Your task to perform on an android device: View the shopping cart on ebay. Image 0: 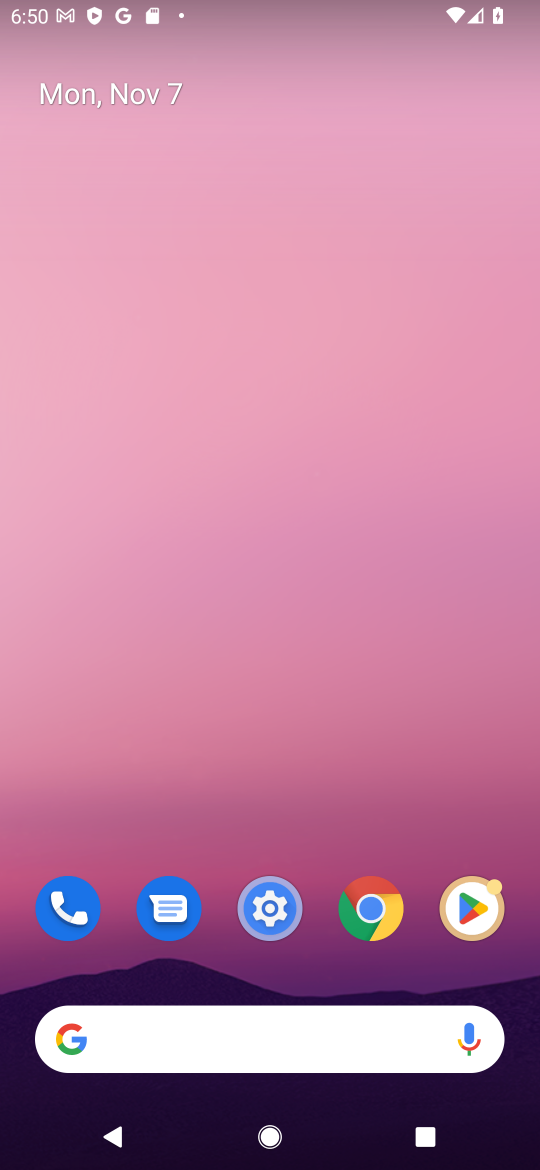
Step 0: click (289, 1054)
Your task to perform on an android device: View the shopping cart on ebay. Image 1: 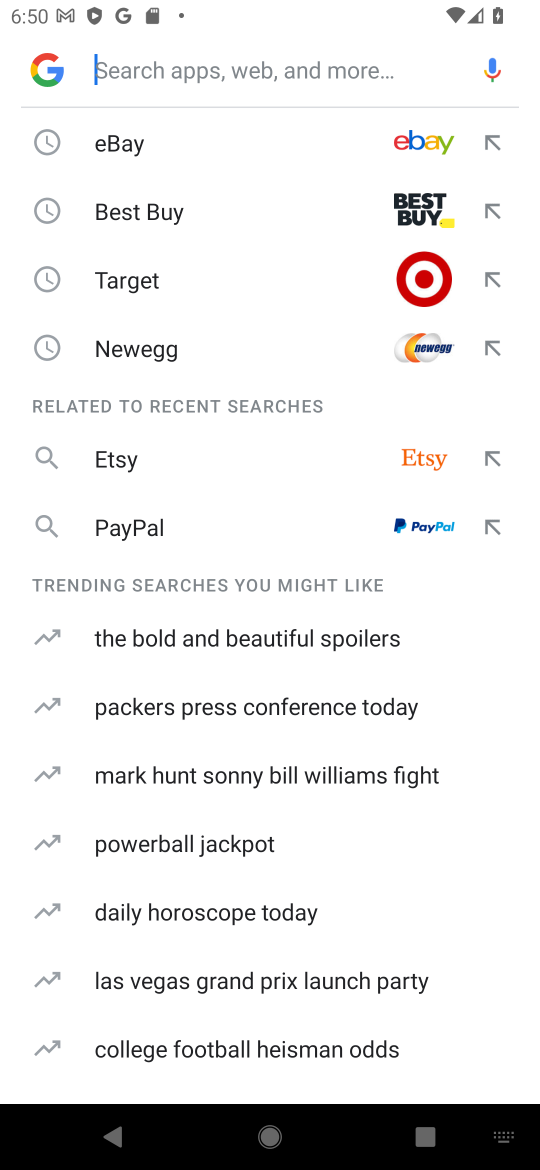
Step 1: click (137, 138)
Your task to perform on an android device: View the shopping cart on ebay. Image 2: 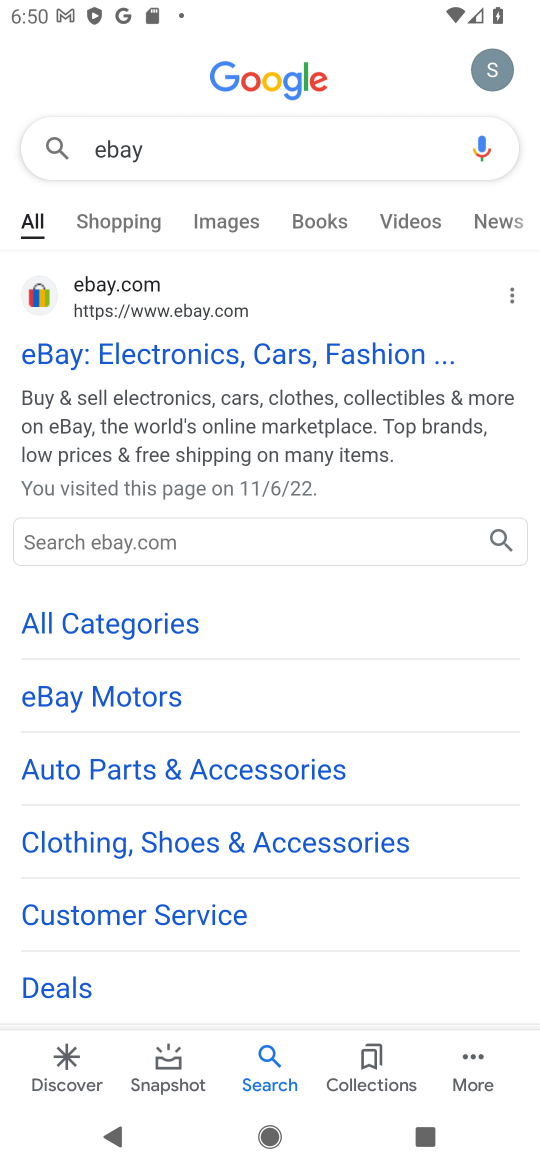
Step 2: click (260, 350)
Your task to perform on an android device: View the shopping cart on ebay. Image 3: 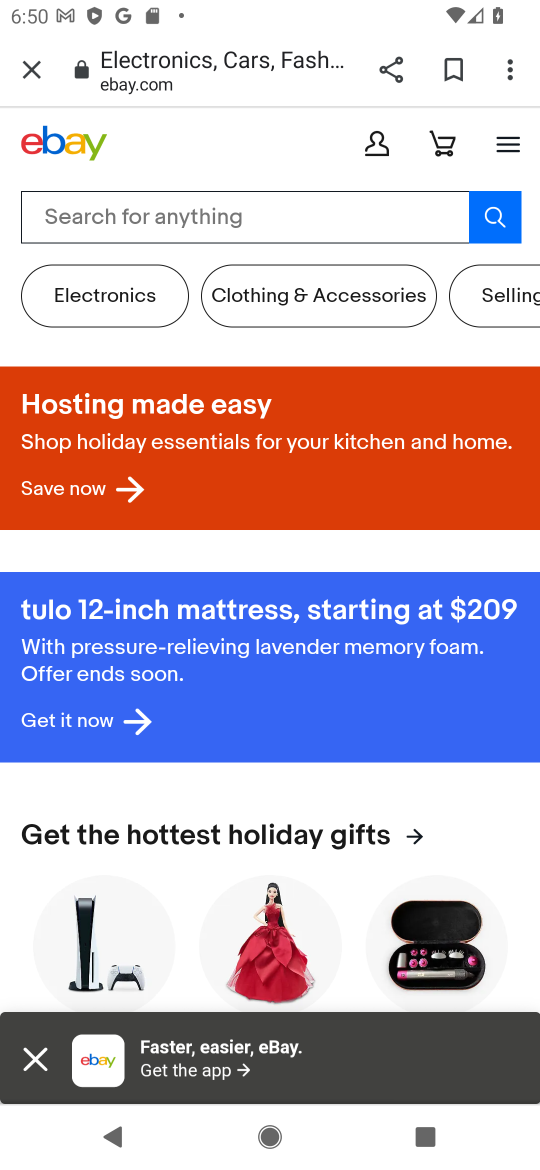
Step 3: task complete